Your task to perform on an android device: Open internet settings Image 0: 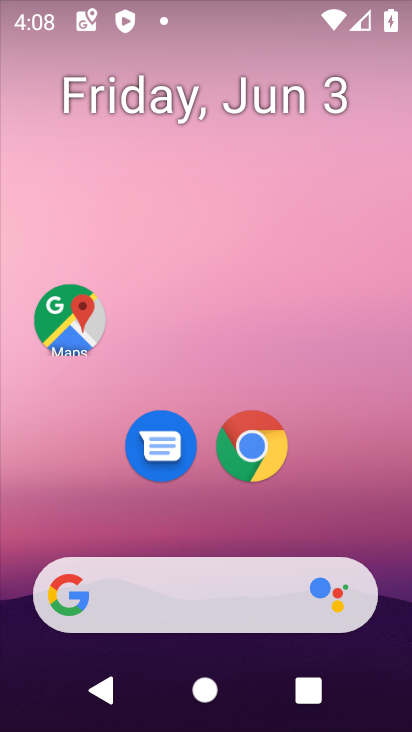
Step 0: task complete